Your task to perform on an android device: all mails in gmail Image 0: 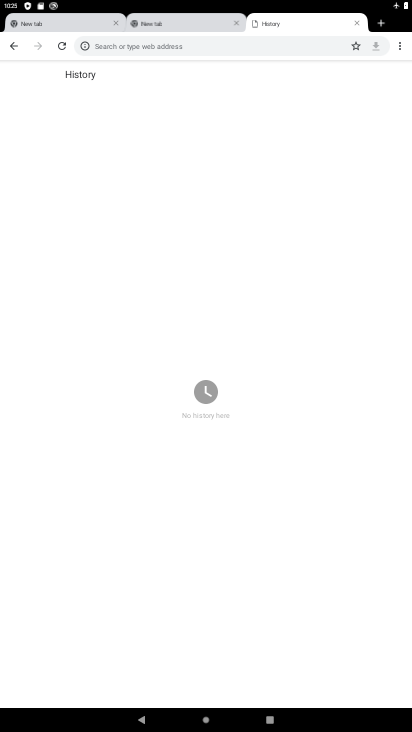
Step 0: press back button
Your task to perform on an android device: all mails in gmail Image 1: 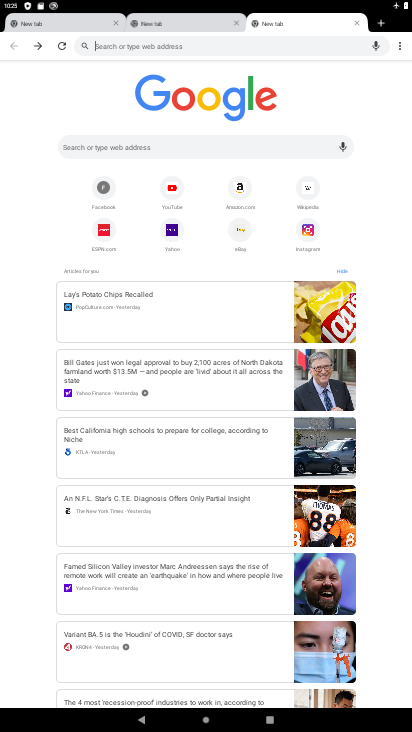
Step 1: press back button
Your task to perform on an android device: all mails in gmail Image 2: 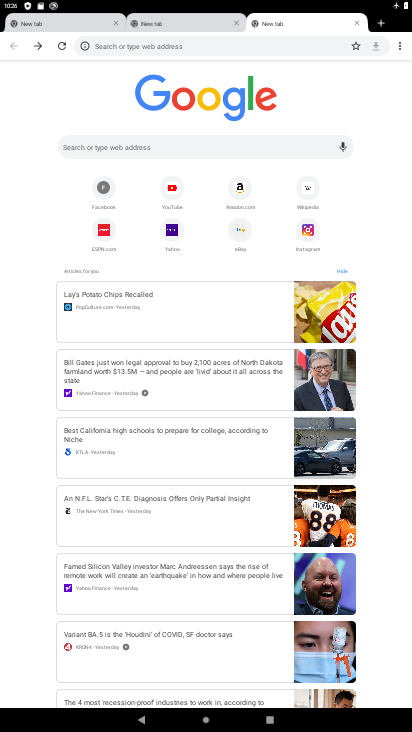
Step 2: press back button
Your task to perform on an android device: all mails in gmail Image 3: 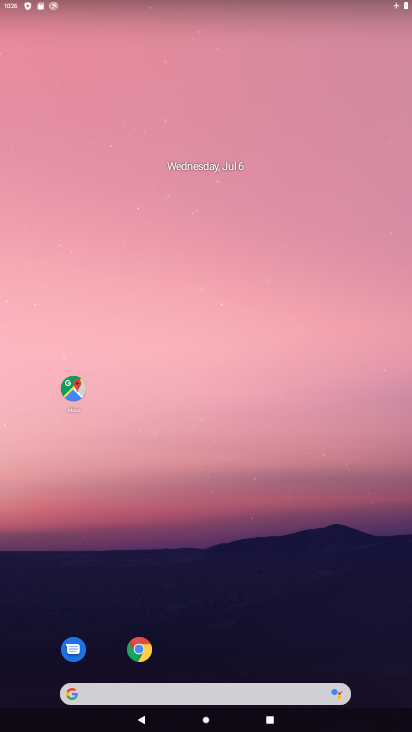
Step 3: drag from (382, 564) to (372, 172)
Your task to perform on an android device: all mails in gmail Image 4: 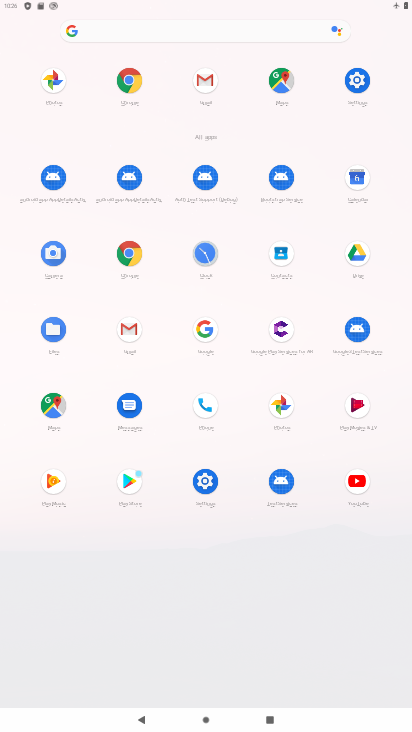
Step 4: click (211, 84)
Your task to perform on an android device: all mails in gmail Image 5: 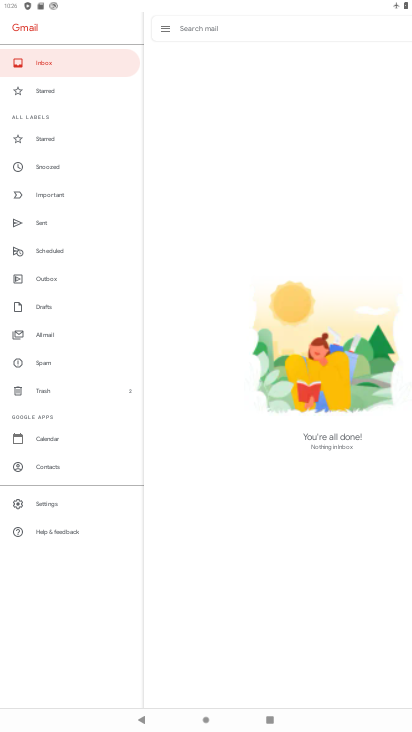
Step 5: click (51, 328)
Your task to perform on an android device: all mails in gmail Image 6: 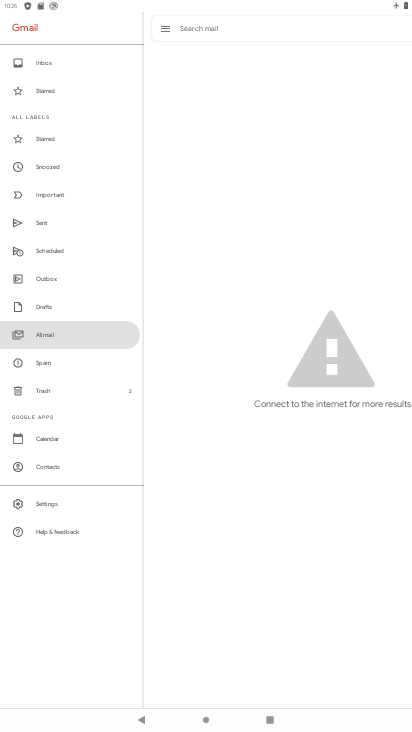
Step 6: task complete